Your task to perform on an android device: turn on bluetooth scan Image 0: 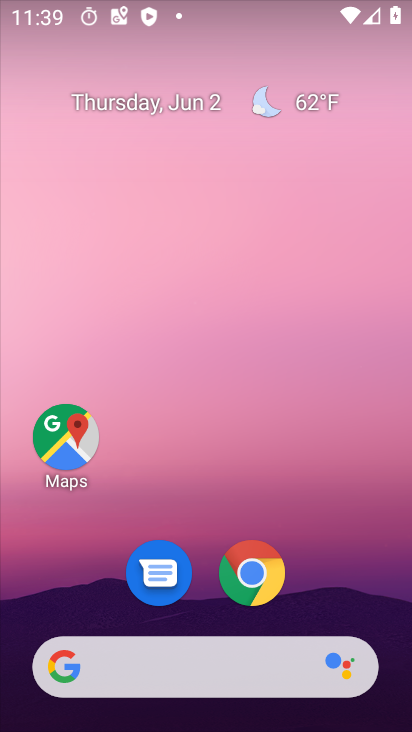
Step 0: drag from (228, 698) to (309, 0)
Your task to perform on an android device: turn on bluetooth scan Image 1: 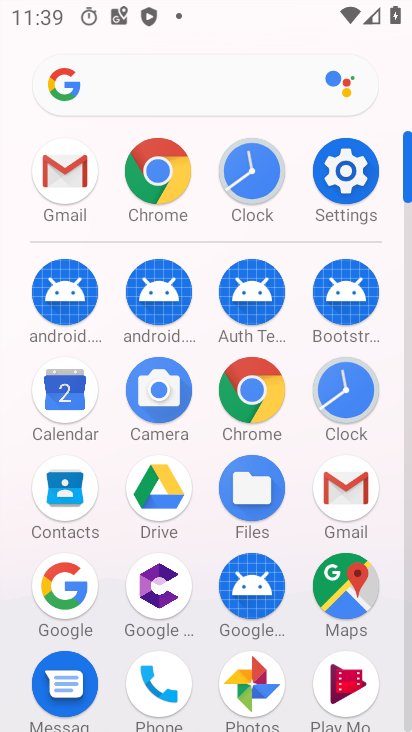
Step 1: click (342, 173)
Your task to perform on an android device: turn on bluetooth scan Image 2: 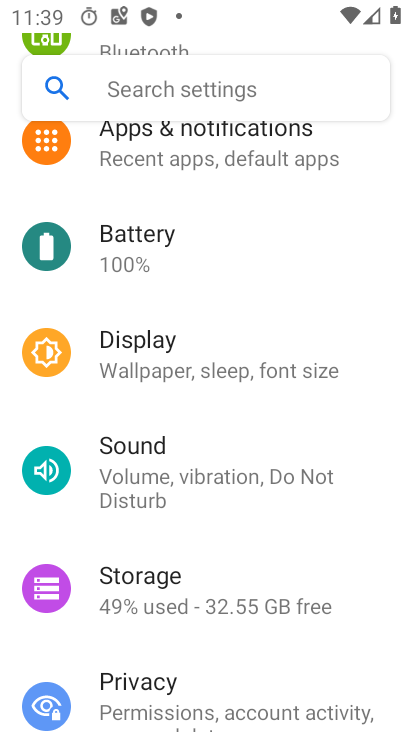
Step 2: drag from (165, 631) to (224, 141)
Your task to perform on an android device: turn on bluetooth scan Image 3: 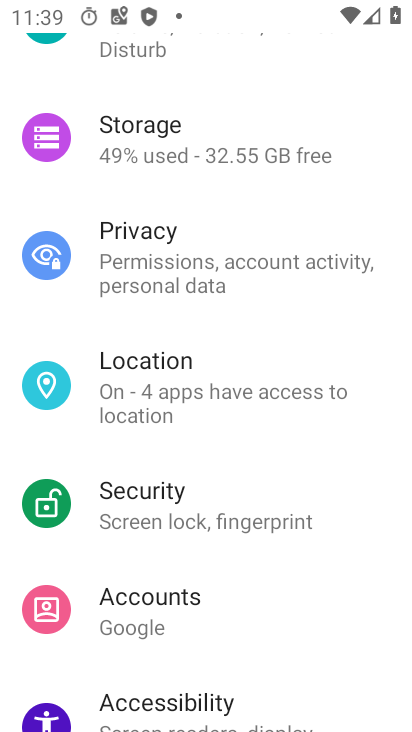
Step 3: drag from (220, 194) to (270, 257)
Your task to perform on an android device: turn on bluetooth scan Image 4: 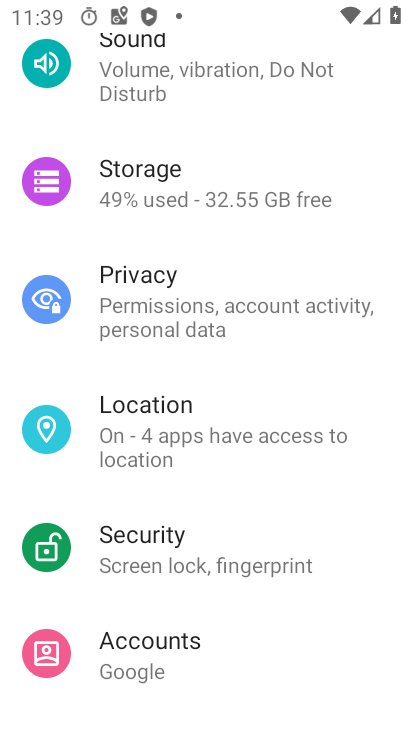
Step 4: click (171, 429)
Your task to perform on an android device: turn on bluetooth scan Image 5: 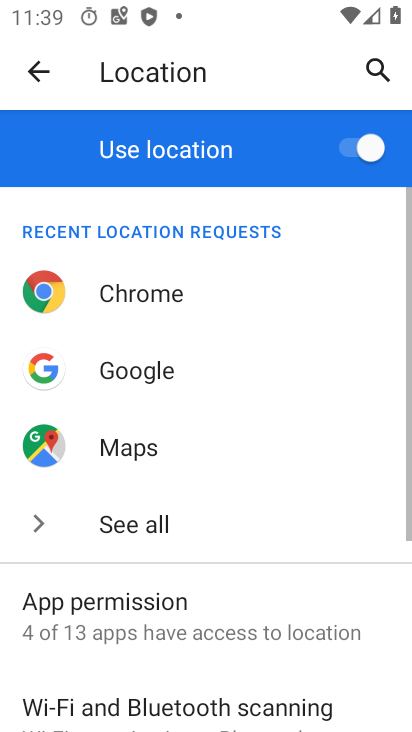
Step 5: drag from (174, 656) to (234, 299)
Your task to perform on an android device: turn on bluetooth scan Image 6: 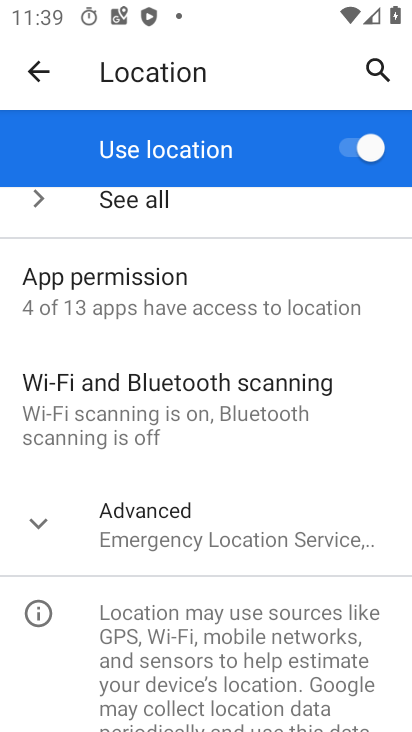
Step 6: click (181, 414)
Your task to perform on an android device: turn on bluetooth scan Image 7: 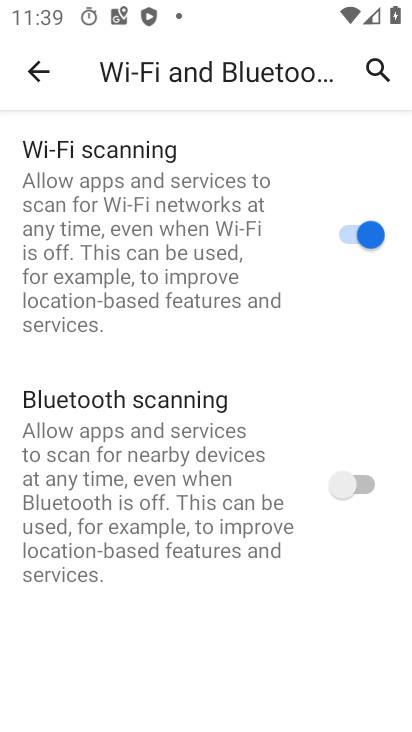
Step 7: click (367, 474)
Your task to perform on an android device: turn on bluetooth scan Image 8: 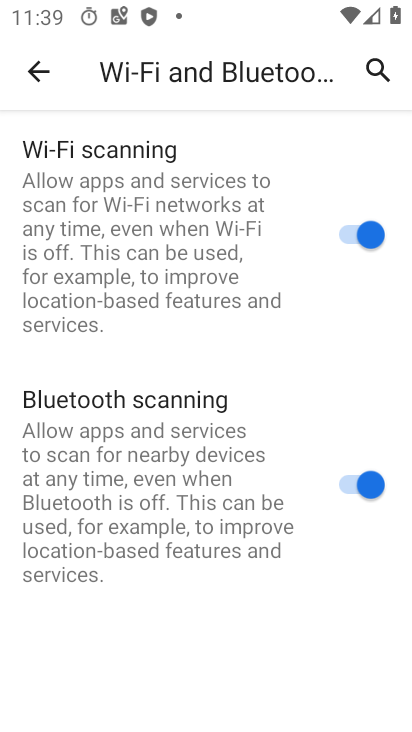
Step 8: task complete